Your task to perform on an android device: turn on sleep mode Image 0: 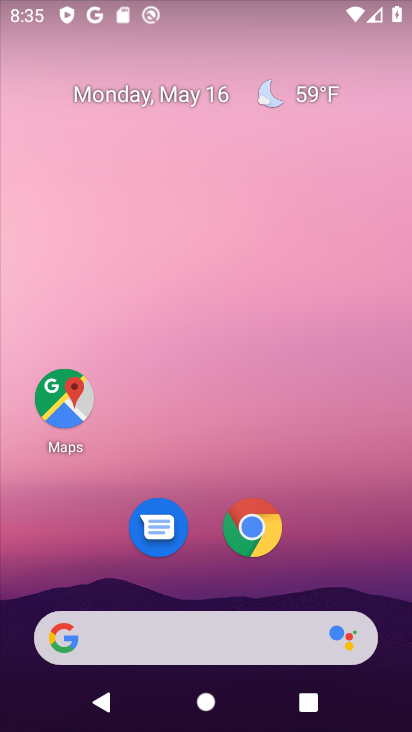
Step 0: drag from (317, 559) to (298, 231)
Your task to perform on an android device: turn on sleep mode Image 1: 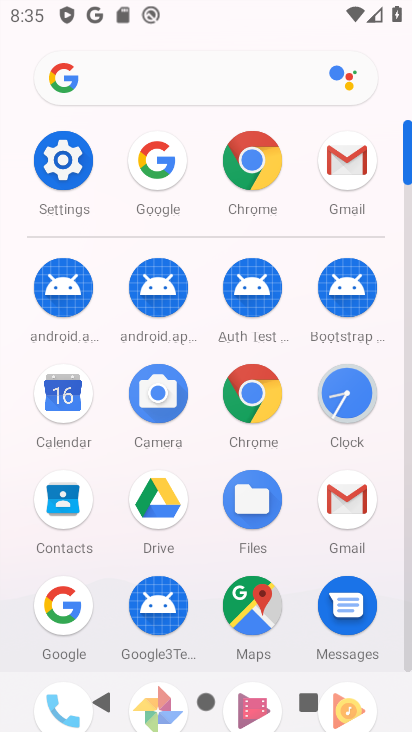
Step 1: click (53, 155)
Your task to perform on an android device: turn on sleep mode Image 2: 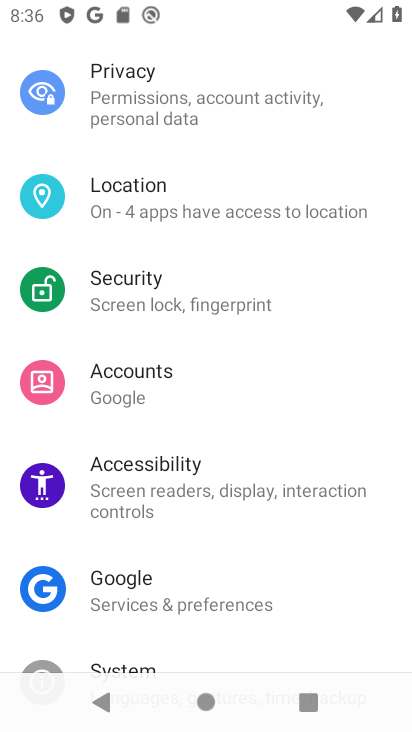
Step 2: task complete